Your task to perform on an android device: Search for macbook air on costco.com, select the first entry, add it to the cart, then select checkout. Image 0: 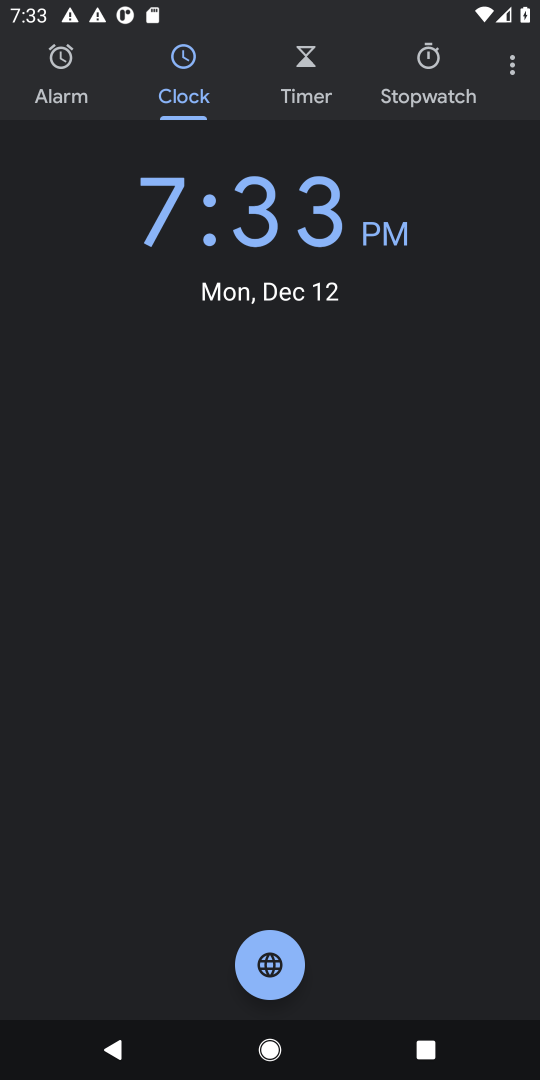
Step 0: task impossible